Your task to perform on an android device: Open Wikipedia Image 0: 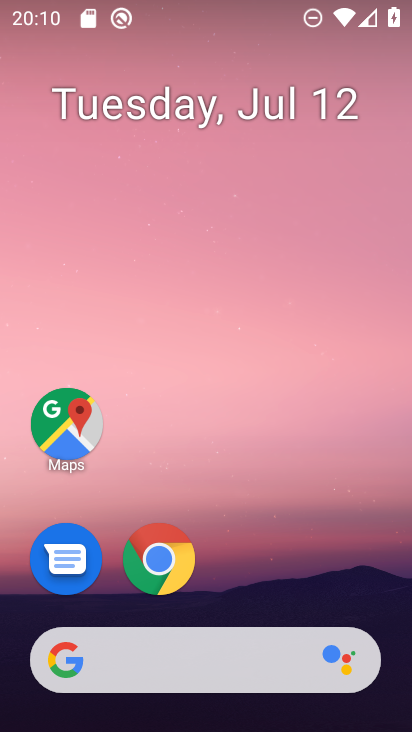
Step 0: drag from (371, 568) to (367, 83)
Your task to perform on an android device: Open Wikipedia Image 1: 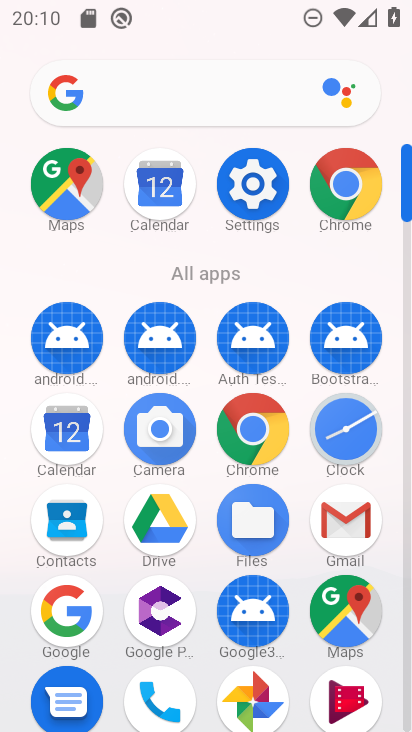
Step 1: click (261, 422)
Your task to perform on an android device: Open Wikipedia Image 2: 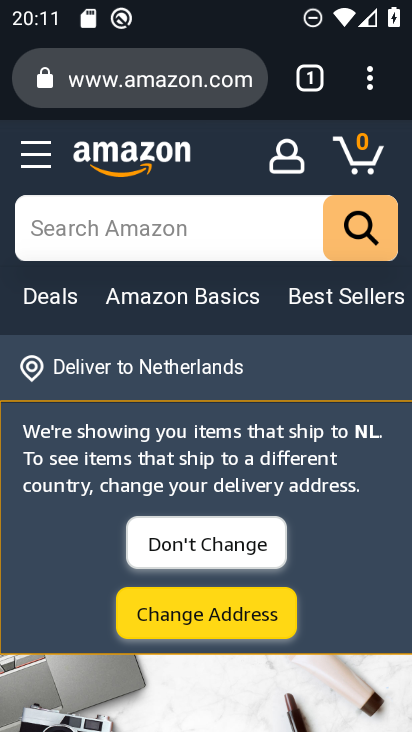
Step 2: click (207, 82)
Your task to perform on an android device: Open Wikipedia Image 3: 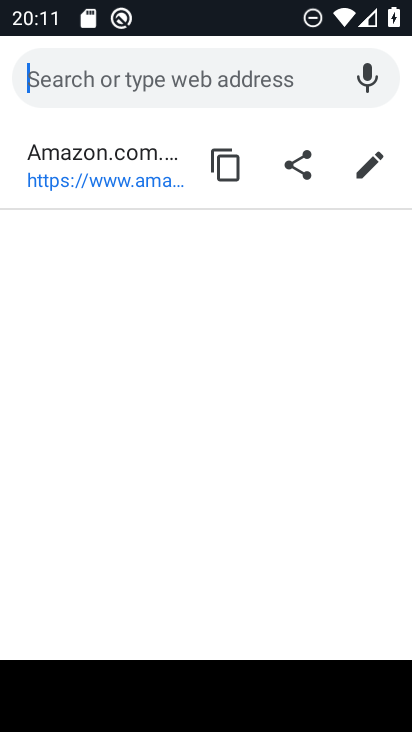
Step 3: type "wikipedia"
Your task to perform on an android device: Open Wikipedia Image 4: 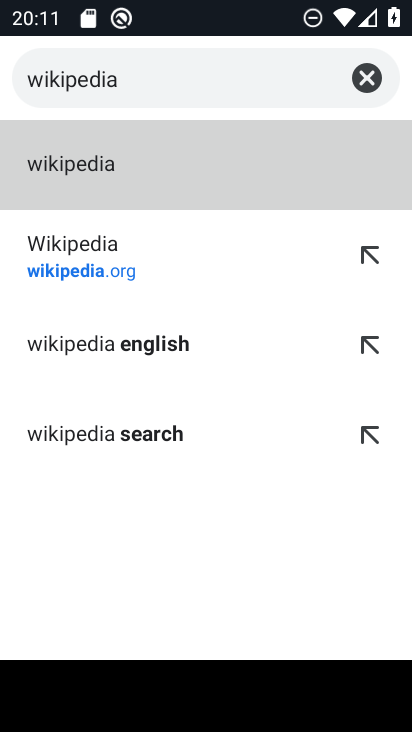
Step 4: click (201, 166)
Your task to perform on an android device: Open Wikipedia Image 5: 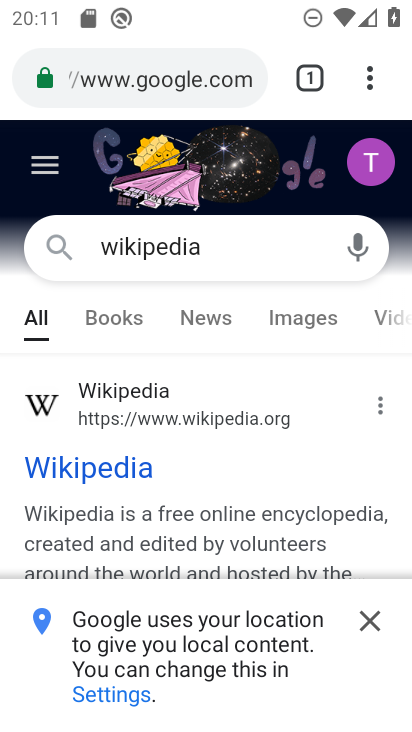
Step 5: task complete